Your task to perform on an android device: Search for sushi restaurants on Maps Image 0: 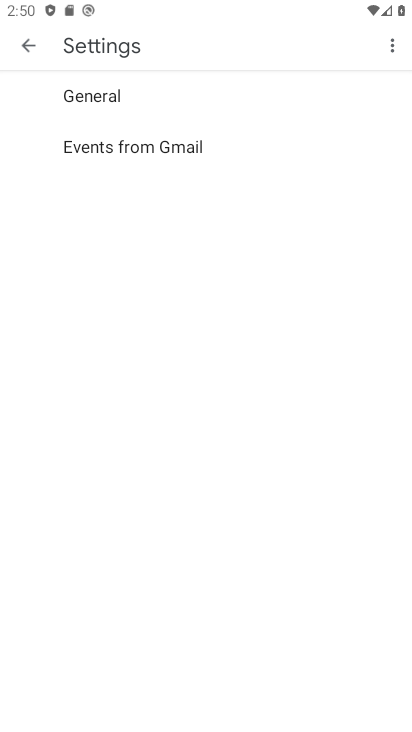
Step 0: press home button
Your task to perform on an android device: Search for sushi restaurants on Maps Image 1: 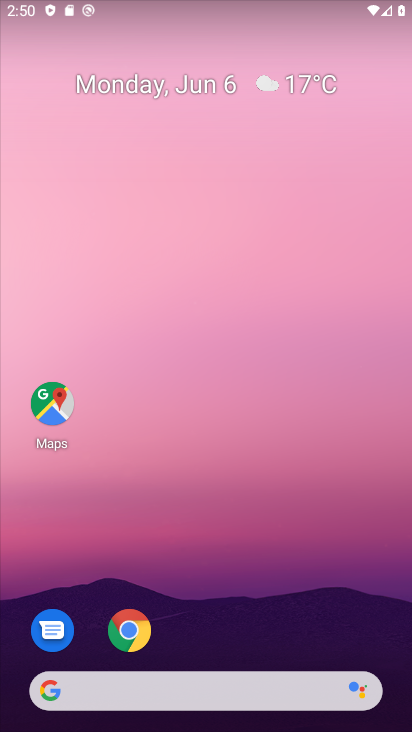
Step 1: click (47, 406)
Your task to perform on an android device: Search for sushi restaurants on Maps Image 2: 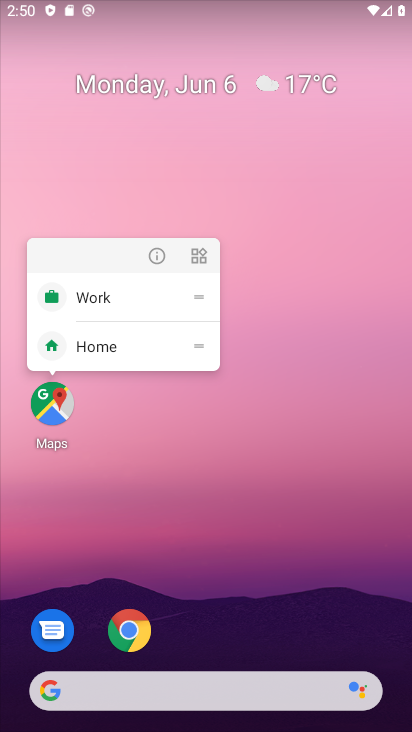
Step 2: click (46, 398)
Your task to perform on an android device: Search for sushi restaurants on Maps Image 3: 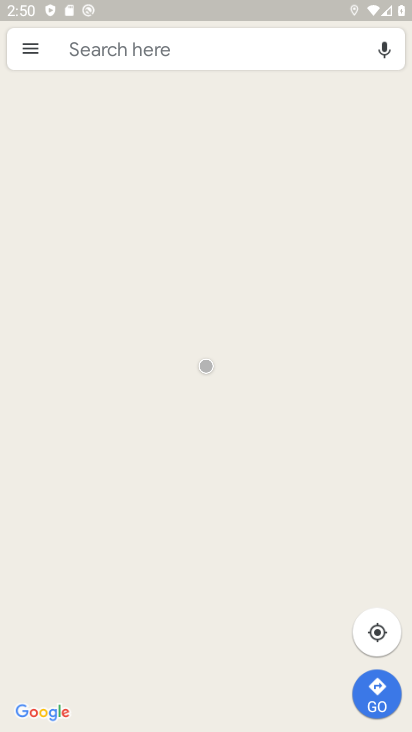
Step 3: click (221, 44)
Your task to perform on an android device: Search for sushi restaurants on Maps Image 4: 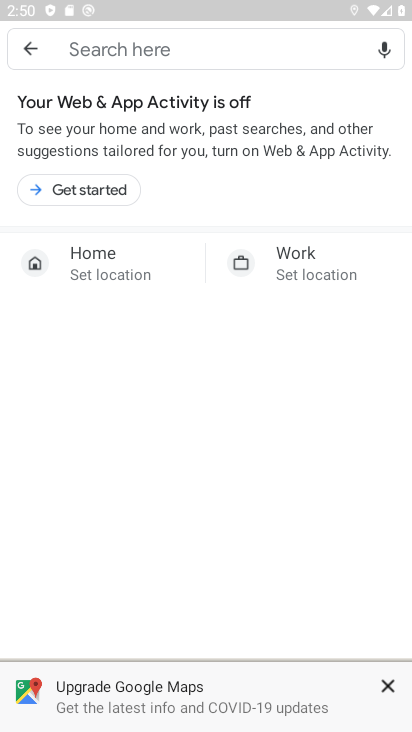
Step 4: click (173, 42)
Your task to perform on an android device: Search for sushi restaurants on Maps Image 5: 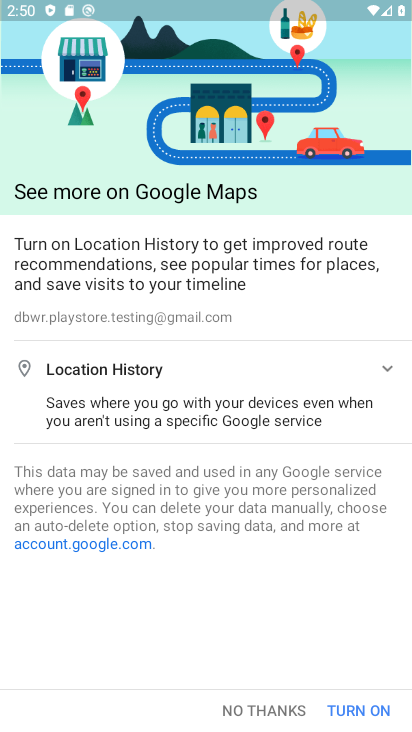
Step 5: click (262, 698)
Your task to perform on an android device: Search for sushi restaurants on Maps Image 6: 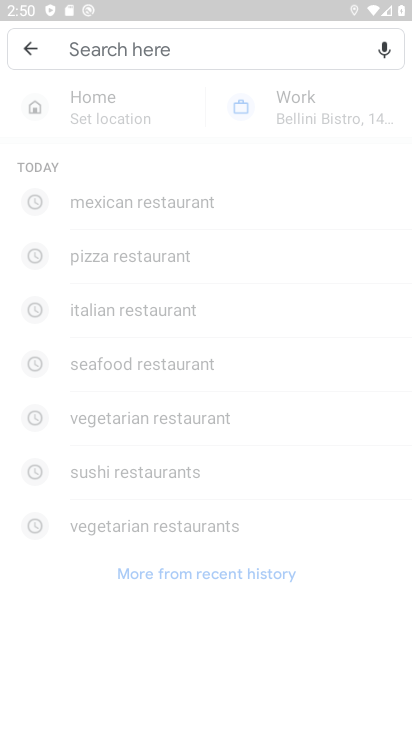
Step 6: click (282, 710)
Your task to perform on an android device: Search for sushi restaurants on Maps Image 7: 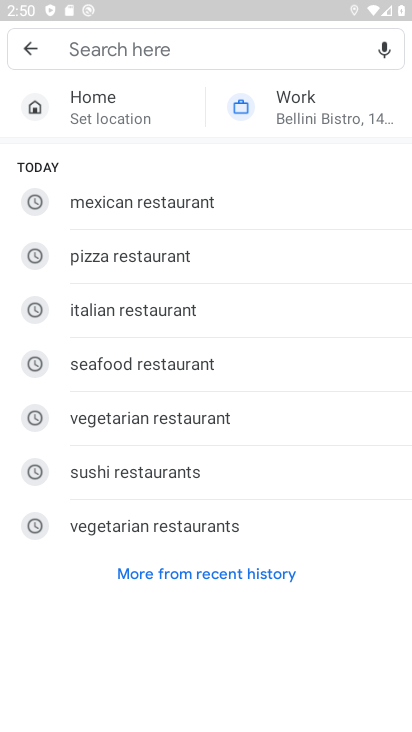
Step 7: click (137, 467)
Your task to perform on an android device: Search for sushi restaurants on Maps Image 8: 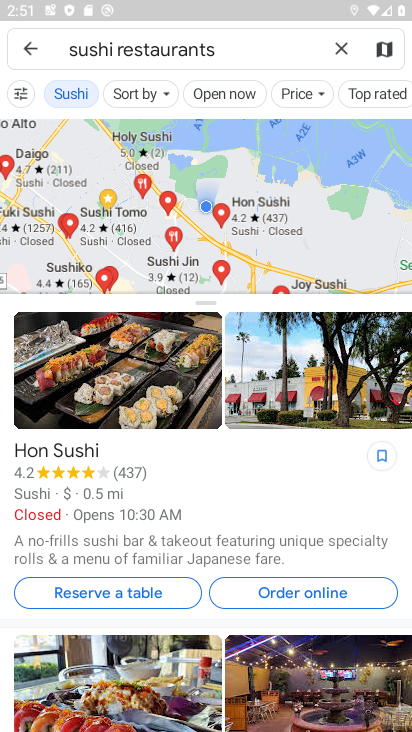
Step 8: task complete